Your task to perform on an android device: How much does the TCL TV cost? Image 0: 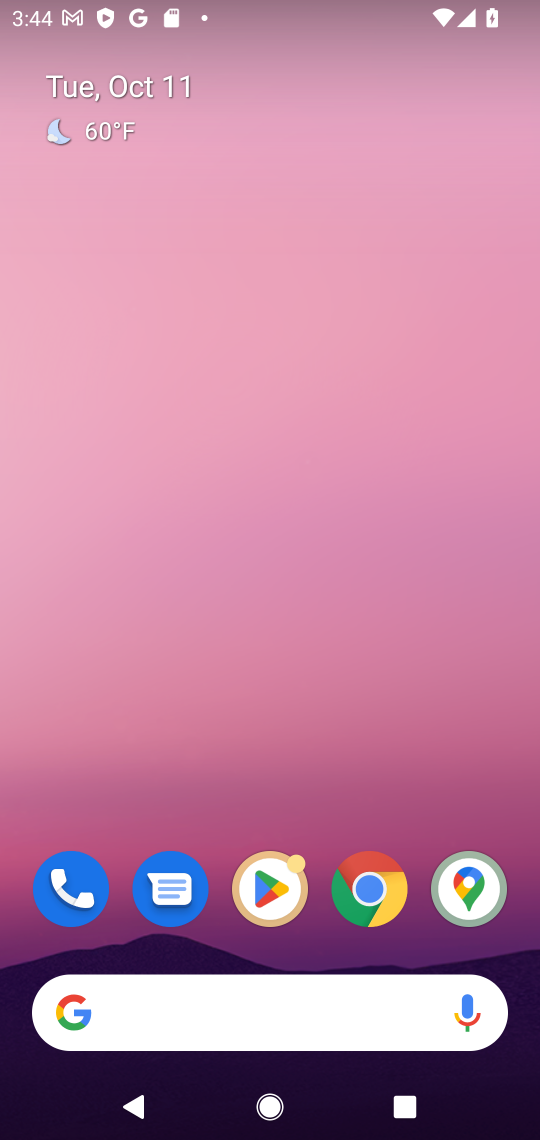
Step 0: drag from (260, 401) to (260, 329)
Your task to perform on an android device: How much does the TCL TV cost? Image 1: 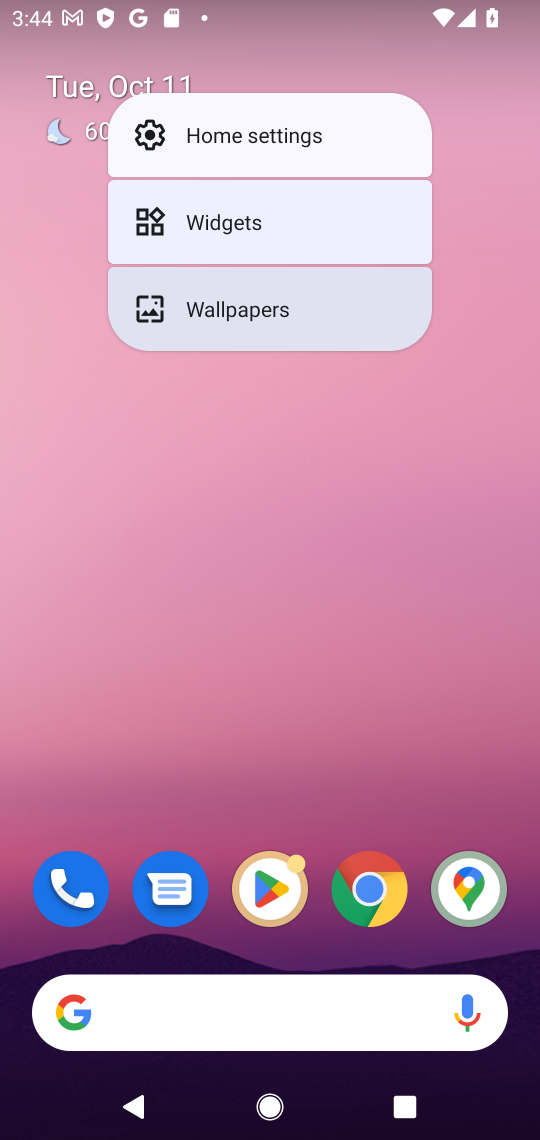
Step 1: click (356, 777)
Your task to perform on an android device: How much does the TCL TV cost? Image 2: 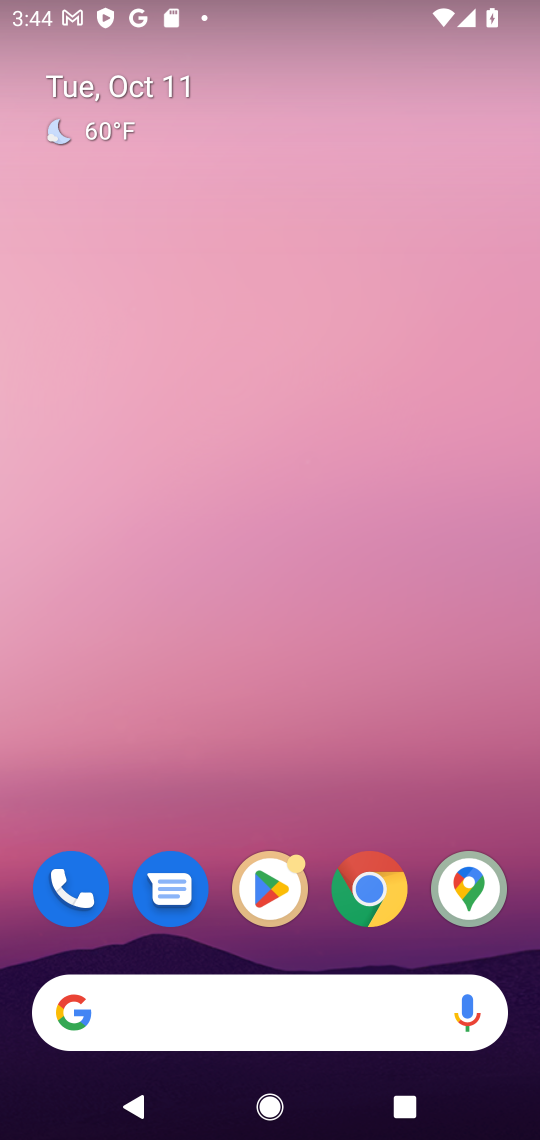
Step 2: drag from (367, 688) to (365, 346)
Your task to perform on an android device: How much does the TCL TV cost? Image 3: 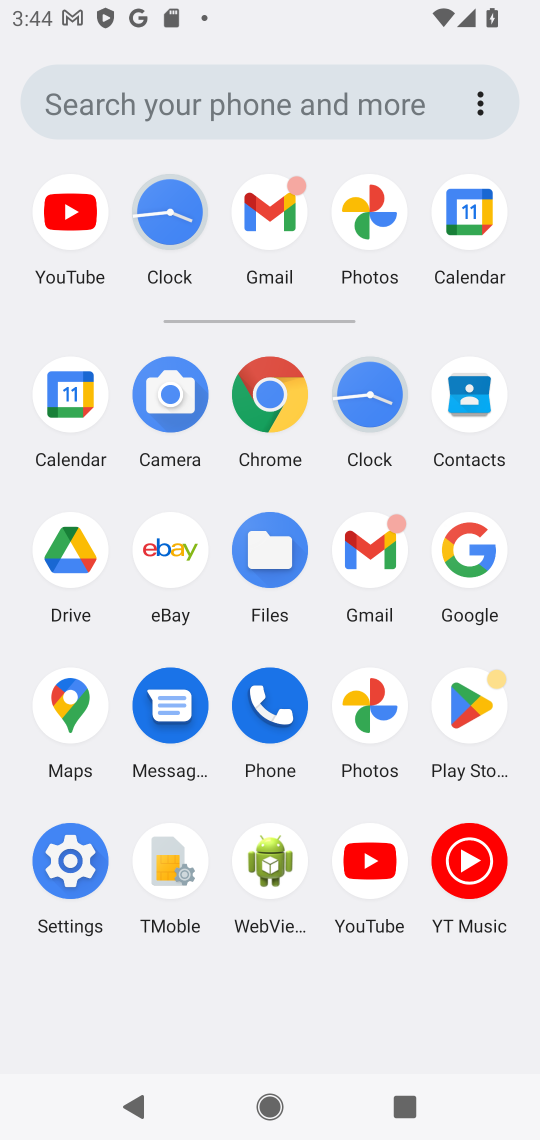
Step 3: click (461, 542)
Your task to perform on an android device: How much does the TCL TV cost? Image 4: 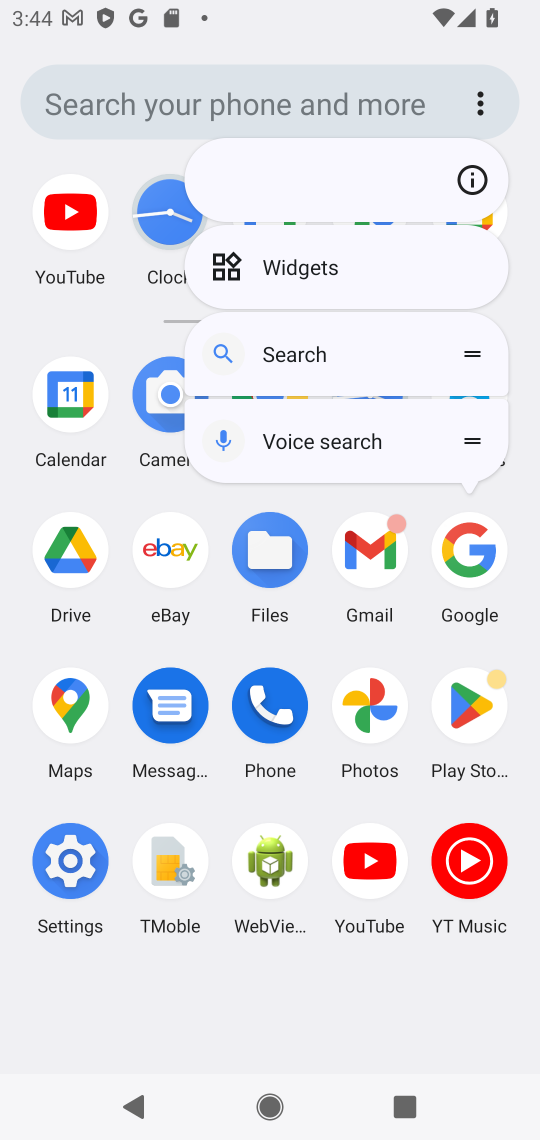
Step 4: click (461, 537)
Your task to perform on an android device: How much does the TCL TV cost? Image 5: 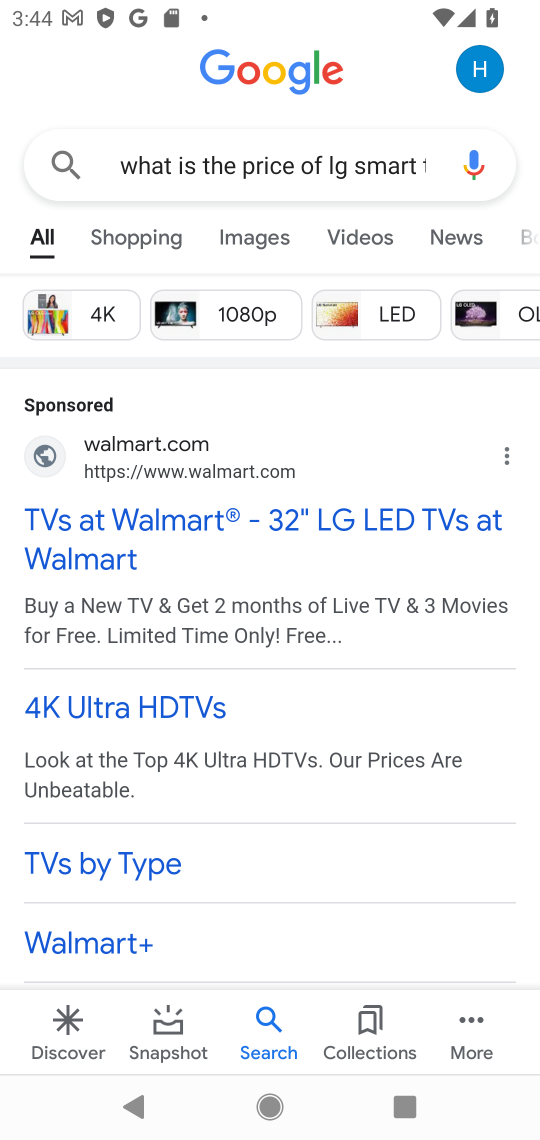
Step 5: click (278, 159)
Your task to perform on an android device: How much does the TCL TV cost? Image 6: 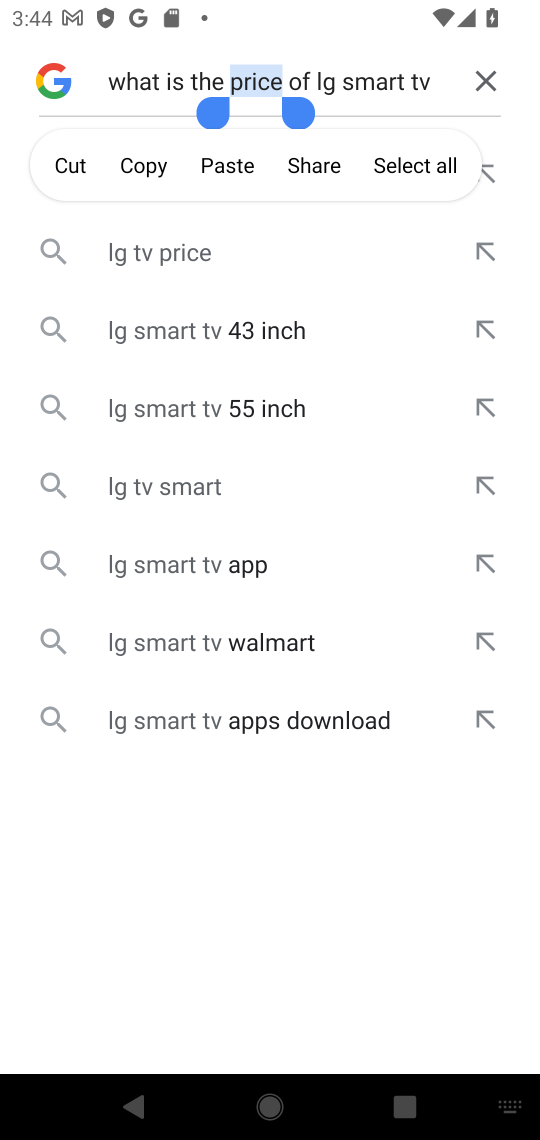
Step 6: click (482, 72)
Your task to perform on an android device: How much does the TCL TV cost? Image 7: 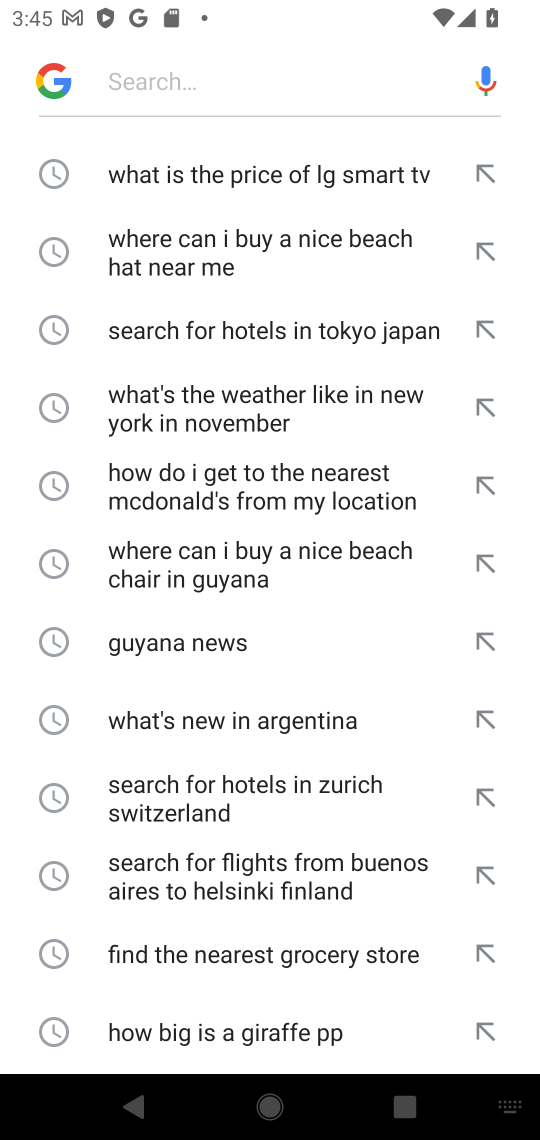
Step 7: click (310, 70)
Your task to perform on an android device: How much does the TCL TV cost? Image 8: 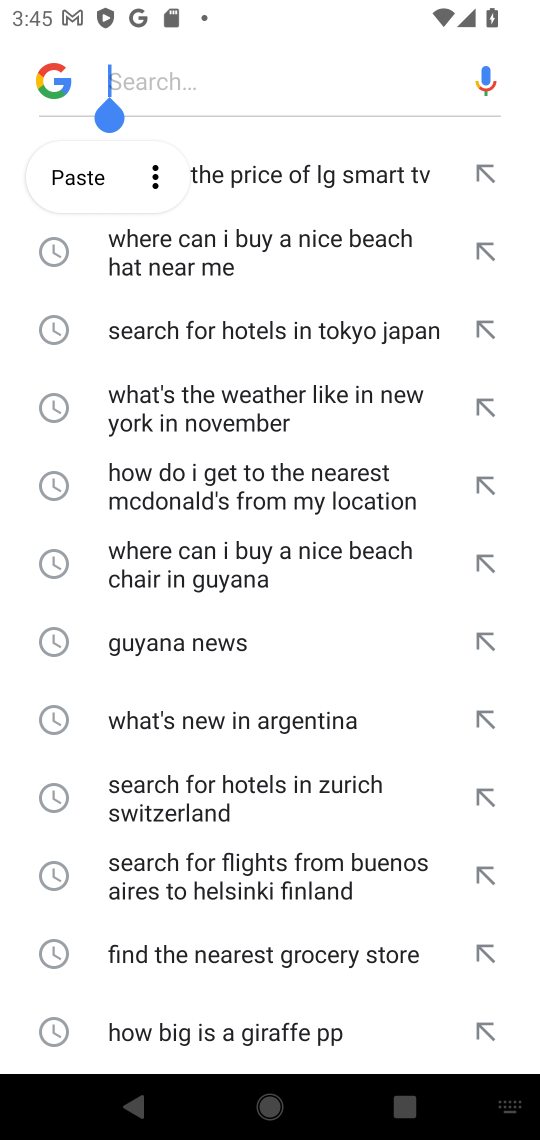
Step 8: type "How much does the TCL TV cost? "
Your task to perform on an android device: How much does the TCL TV cost? Image 9: 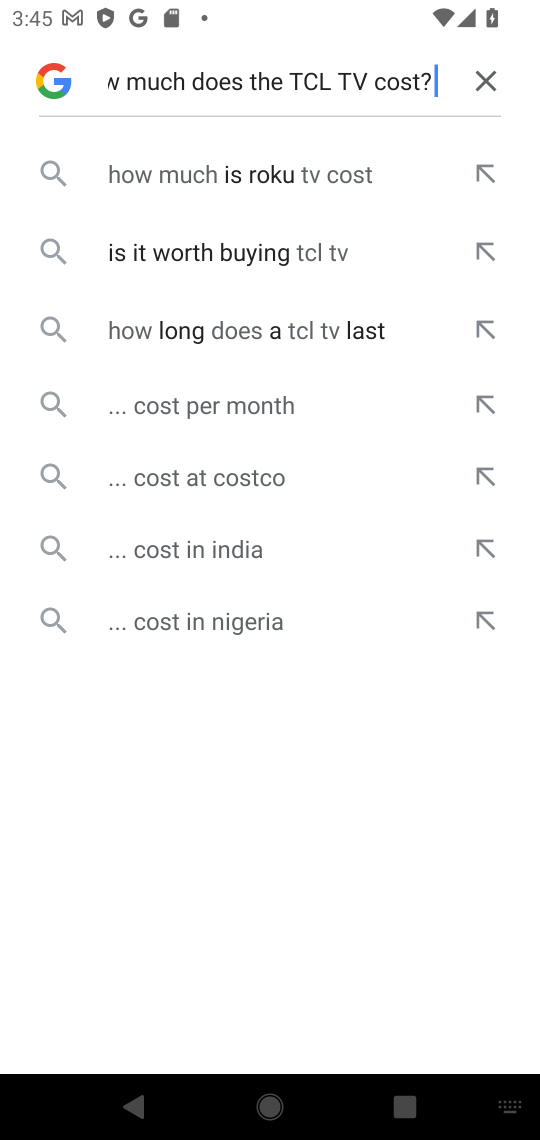
Step 9: click (289, 172)
Your task to perform on an android device: How much does the TCL TV cost? Image 10: 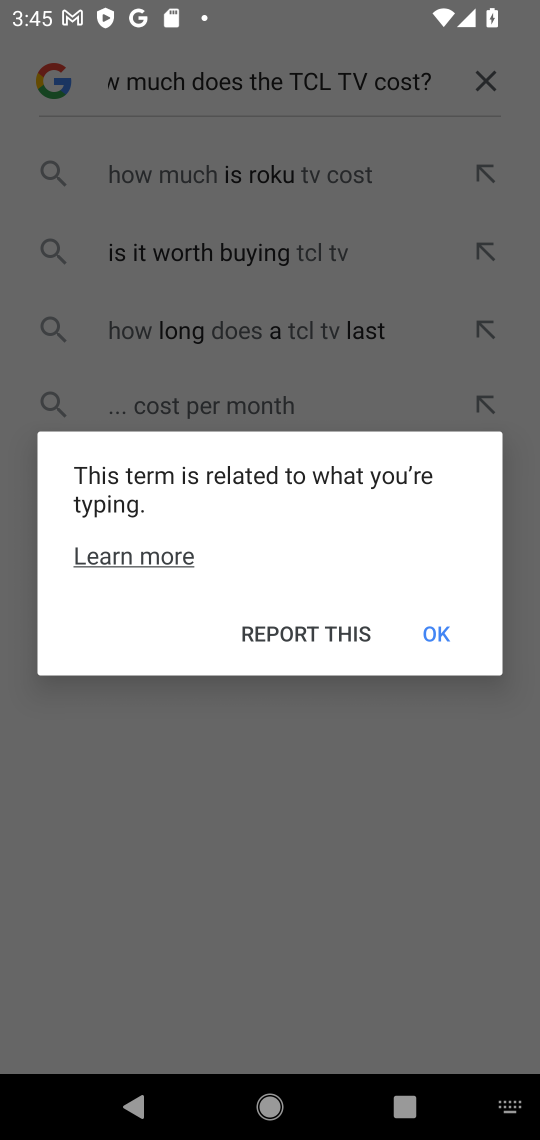
Step 10: click (459, 622)
Your task to perform on an android device: How much does the TCL TV cost? Image 11: 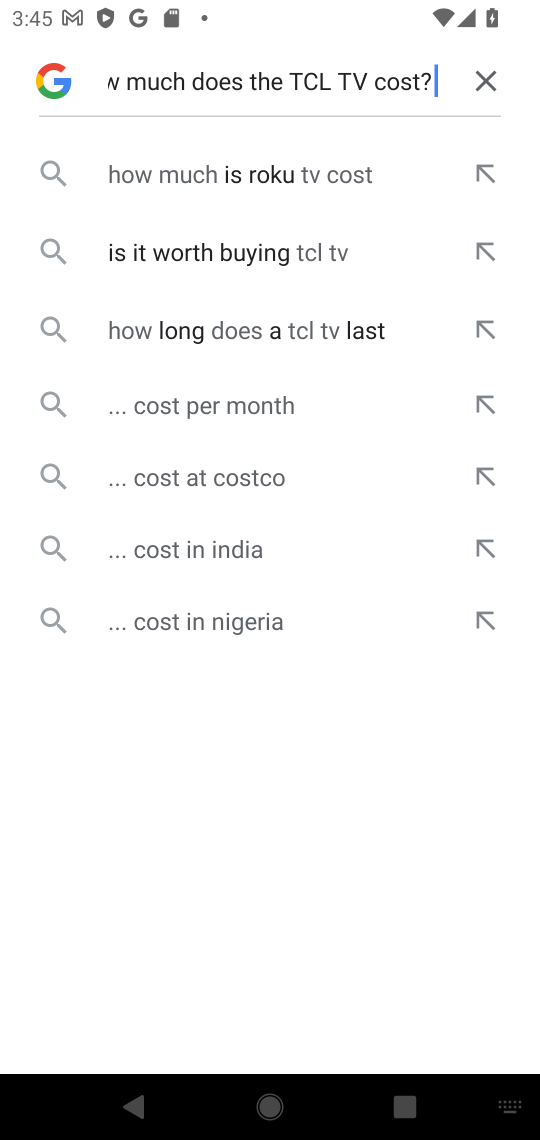
Step 11: click (228, 416)
Your task to perform on an android device: How much does the TCL TV cost? Image 12: 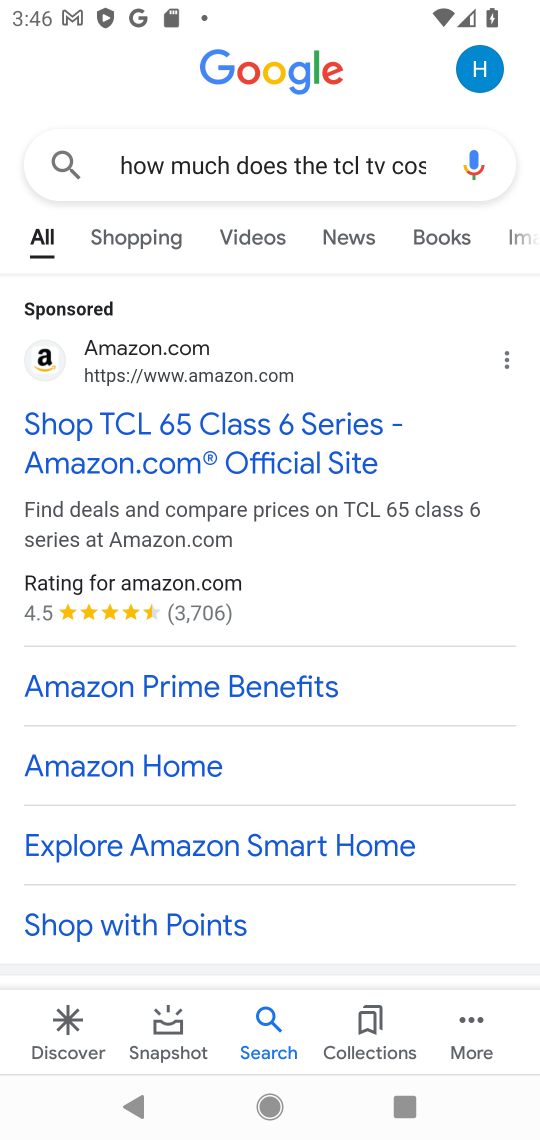
Step 12: click (217, 452)
Your task to perform on an android device: How much does the TCL TV cost? Image 13: 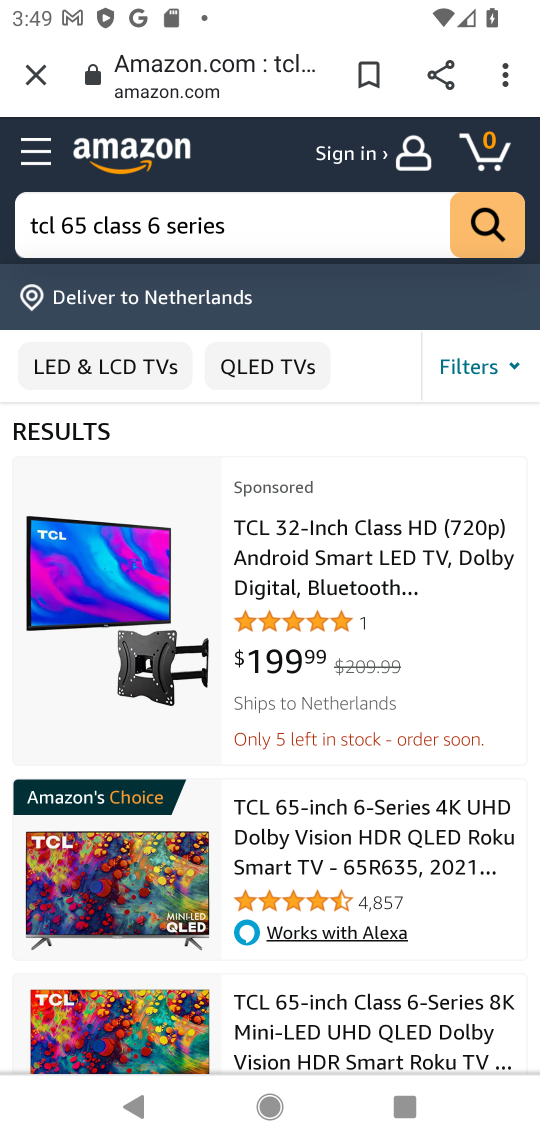
Step 13: task complete